Your task to perform on an android device: Open display settings Image 0: 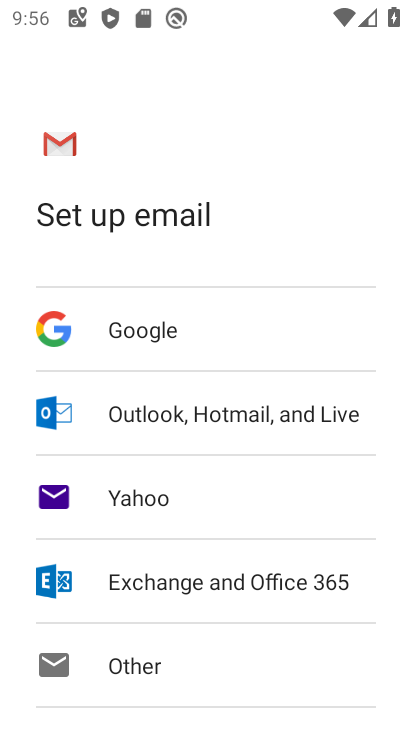
Step 0: press home button
Your task to perform on an android device: Open display settings Image 1: 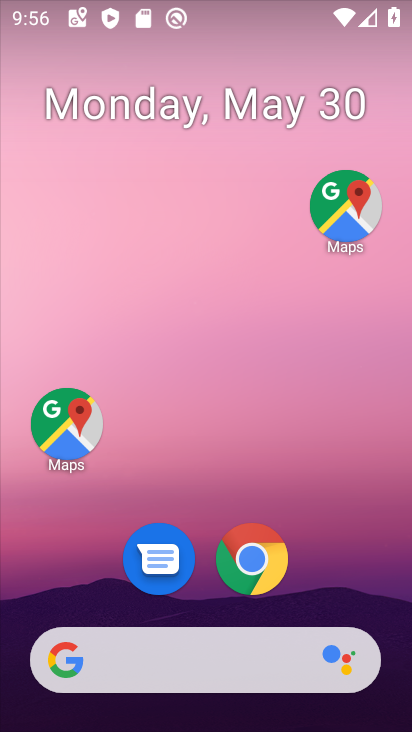
Step 1: drag from (337, 540) to (310, 92)
Your task to perform on an android device: Open display settings Image 2: 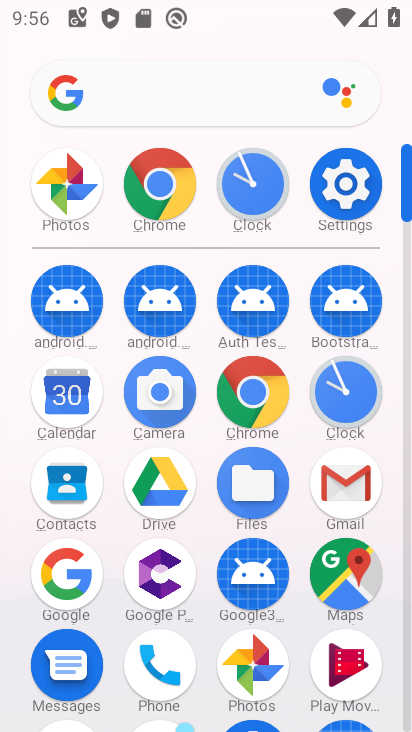
Step 2: click (323, 208)
Your task to perform on an android device: Open display settings Image 3: 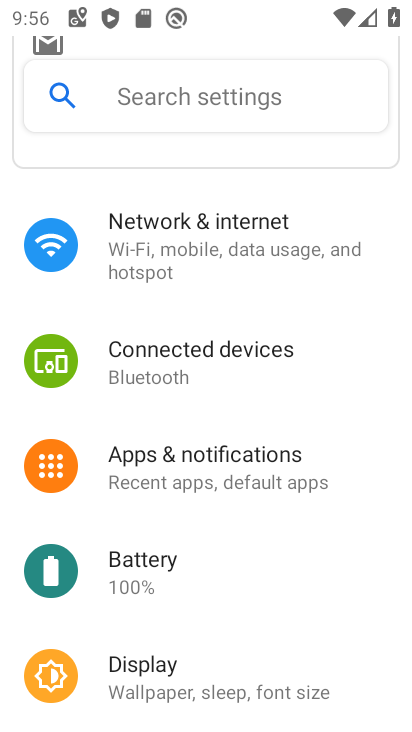
Step 3: drag from (246, 573) to (282, 268)
Your task to perform on an android device: Open display settings Image 4: 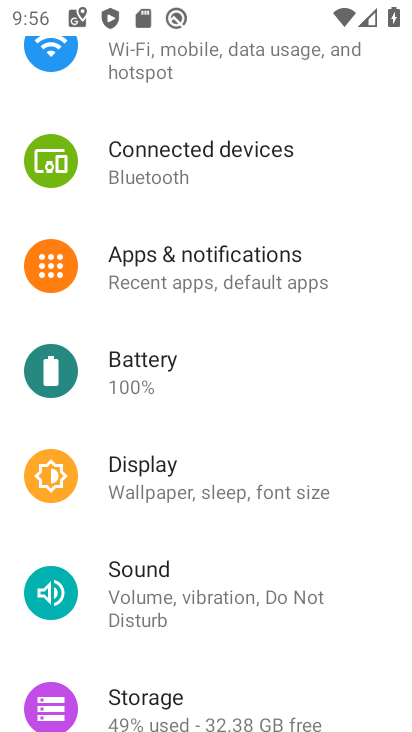
Step 4: click (180, 476)
Your task to perform on an android device: Open display settings Image 5: 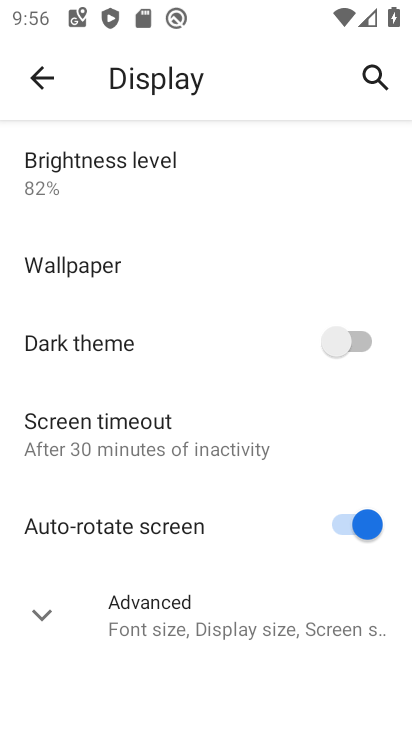
Step 5: task complete